Your task to perform on an android device: Go to wifi settings Image 0: 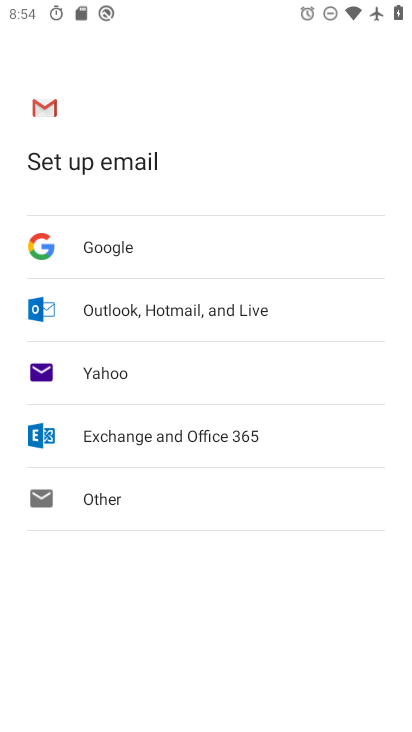
Step 0: press home button
Your task to perform on an android device: Go to wifi settings Image 1: 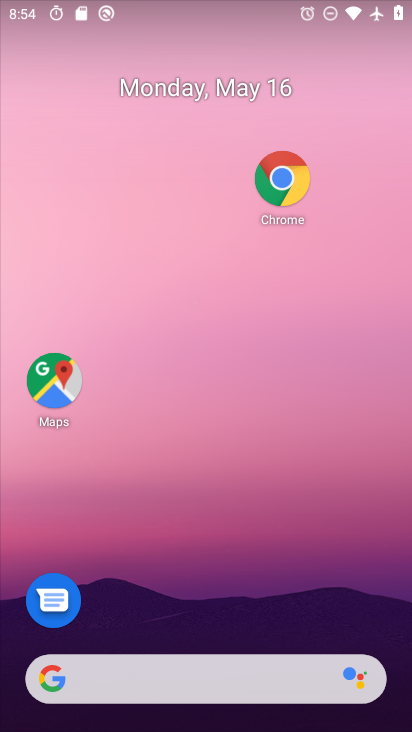
Step 1: drag from (153, 666) to (289, 95)
Your task to perform on an android device: Go to wifi settings Image 2: 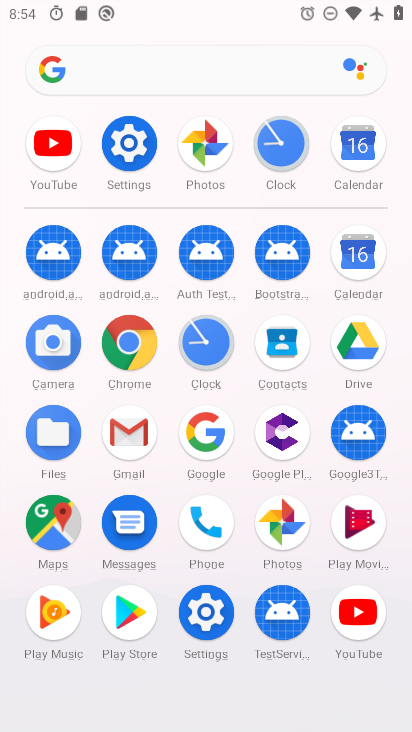
Step 2: click (132, 156)
Your task to perform on an android device: Go to wifi settings Image 3: 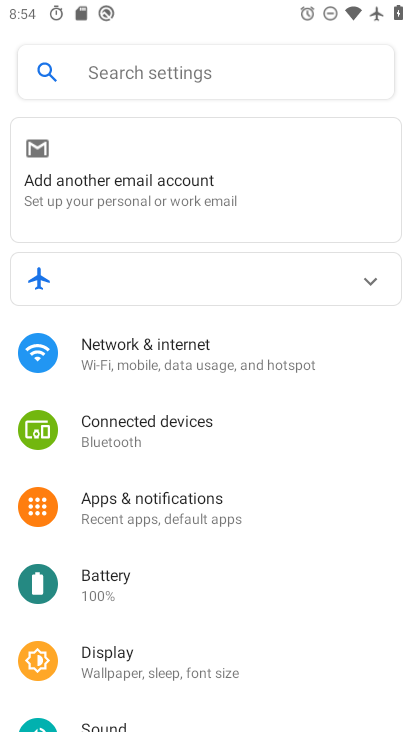
Step 3: click (184, 355)
Your task to perform on an android device: Go to wifi settings Image 4: 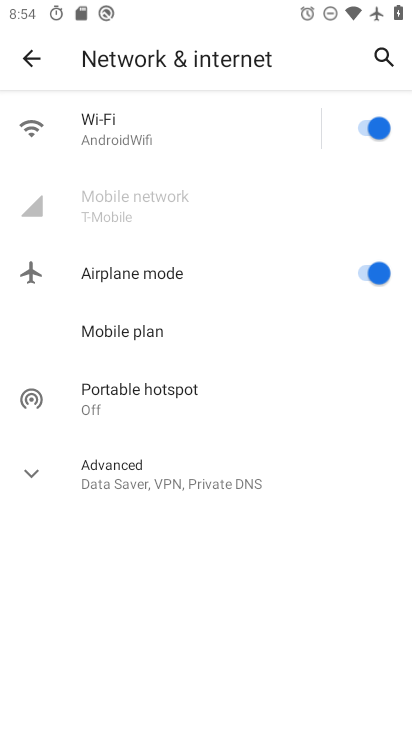
Step 4: click (137, 136)
Your task to perform on an android device: Go to wifi settings Image 5: 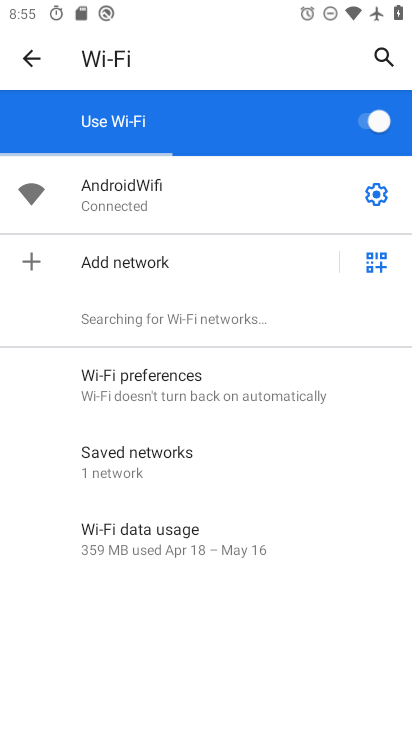
Step 5: task complete